Your task to perform on an android device: find photos in the google photos app Image 0: 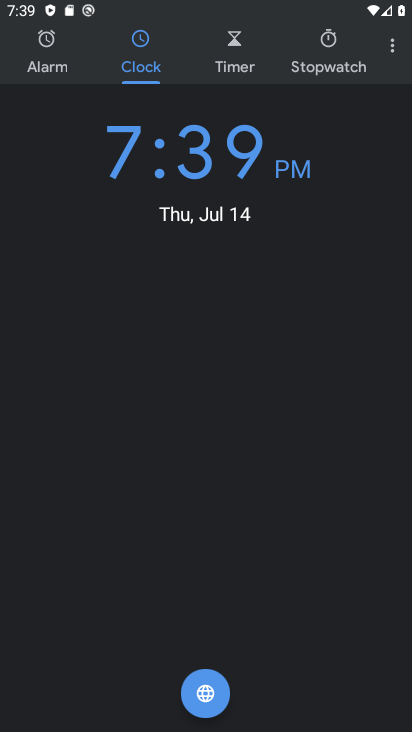
Step 0: press home button
Your task to perform on an android device: find photos in the google photos app Image 1: 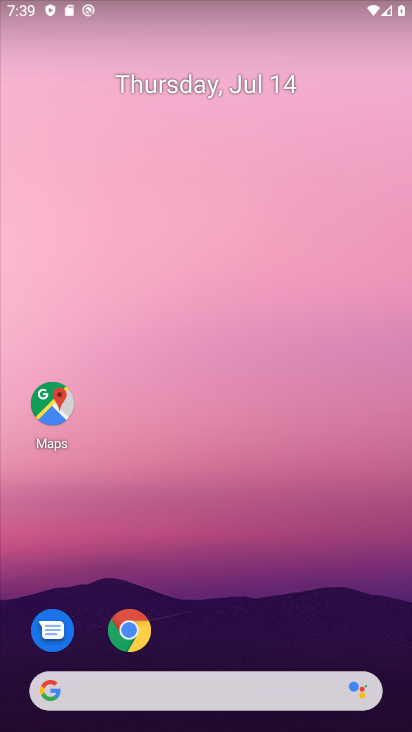
Step 1: drag from (227, 686) to (269, 309)
Your task to perform on an android device: find photos in the google photos app Image 2: 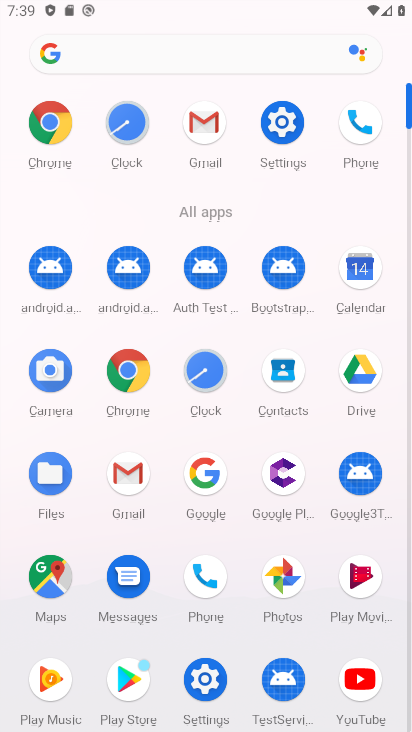
Step 2: click (279, 572)
Your task to perform on an android device: find photos in the google photos app Image 3: 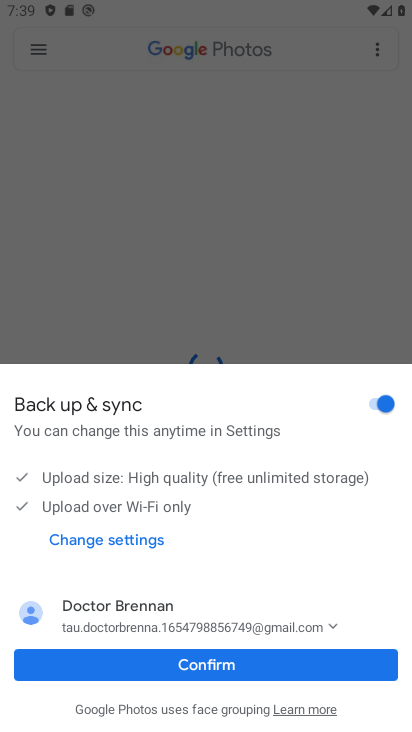
Step 3: click (216, 667)
Your task to perform on an android device: find photos in the google photos app Image 4: 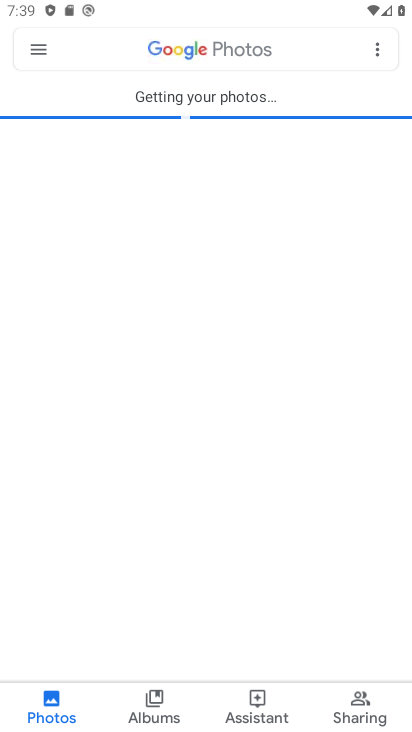
Step 4: click (147, 686)
Your task to perform on an android device: find photos in the google photos app Image 5: 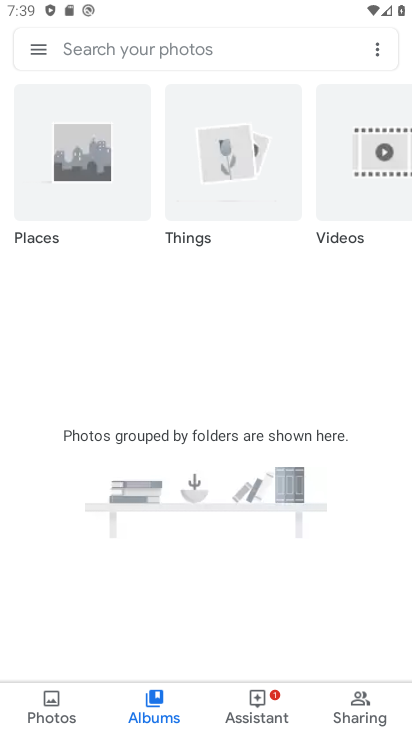
Step 5: task complete